Your task to perform on an android device: turn off priority inbox in the gmail app Image 0: 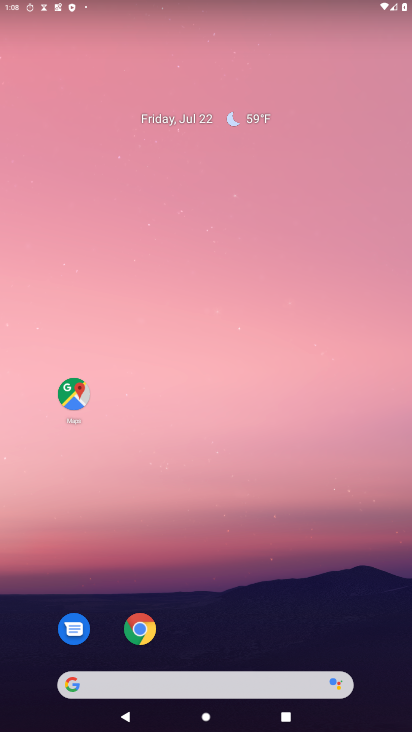
Step 0: drag from (279, 669) to (277, 128)
Your task to perform on an android device: turn off priority inbox in the gmail app Image 1: 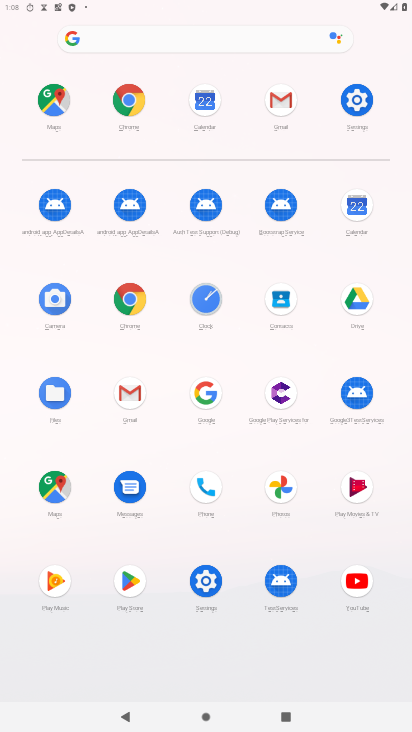
Step 1: click (123, 397)
Your task to perform on an android device: turn off priority inbox in the gmail app Image 2: 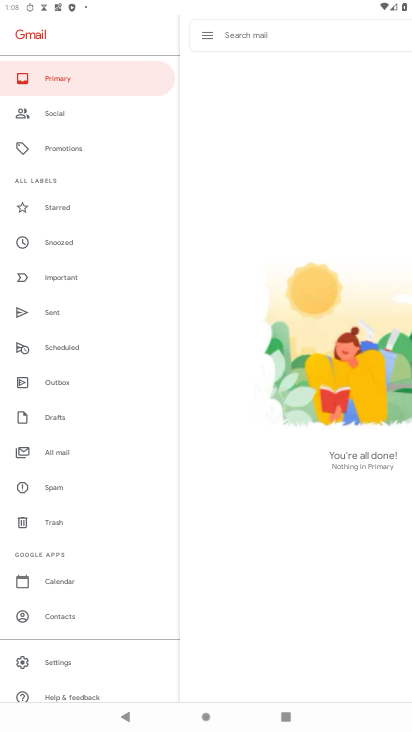
Step 2: click (52, 665)
Your task to perform on an android device: turn off priority inbox in the gmail app Image 3: 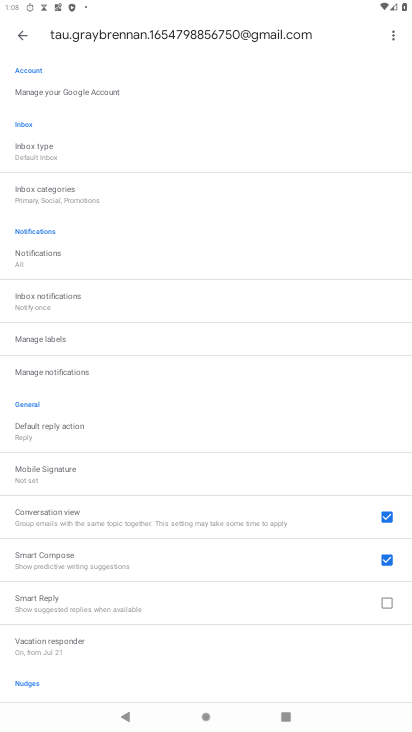
Step 3: click (47, 160)
Your task to perform on an android device: turn off priority inbox in the gmail app Image 4: 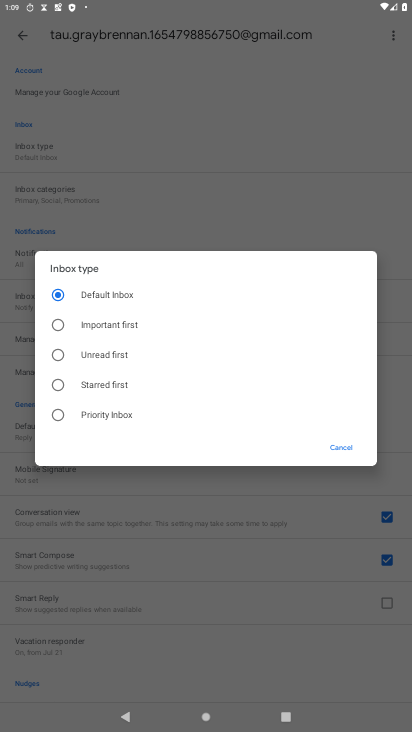
Step 4: task complete